Your task to perform on an android device: change the upload size in google photos Image 0: 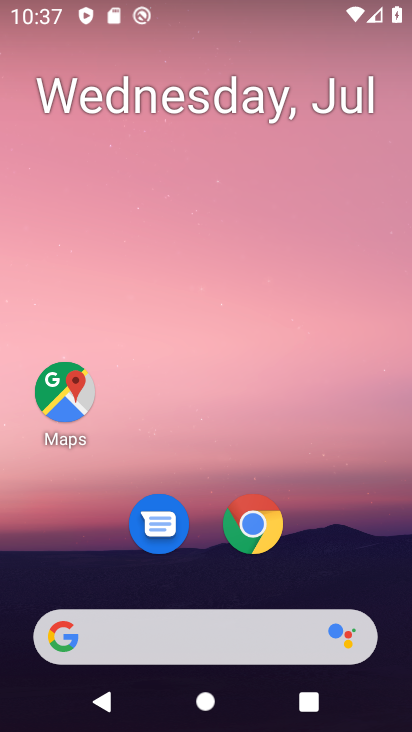
Step 0: press home button
Your task to perform on an android device: change the upload size in google photos Image 1: 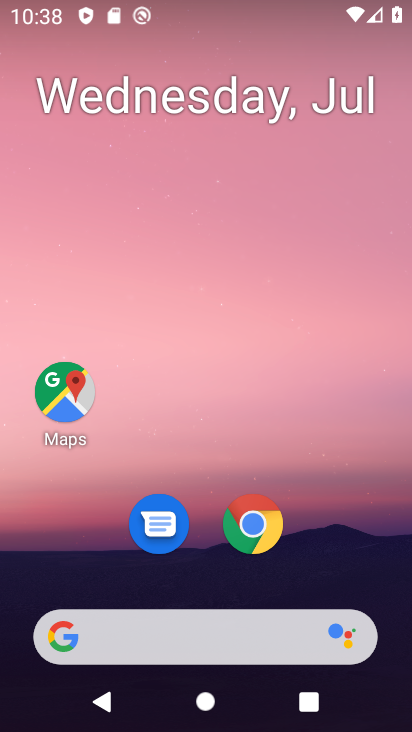
Step 1: drag from (203, 623) to (302, 101)
Your task to perform on an android device: change the upload size in google photos Image 2: 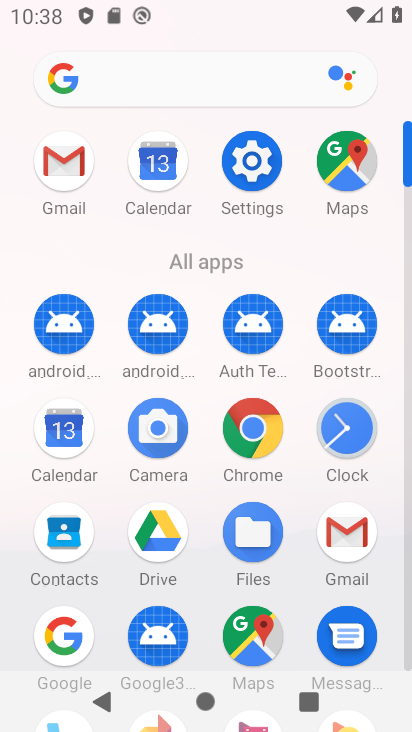
Step 2: drag from (207, 581) to (299, 133)
Your task to perform on an android device: change the upload size in google photos Image 3: 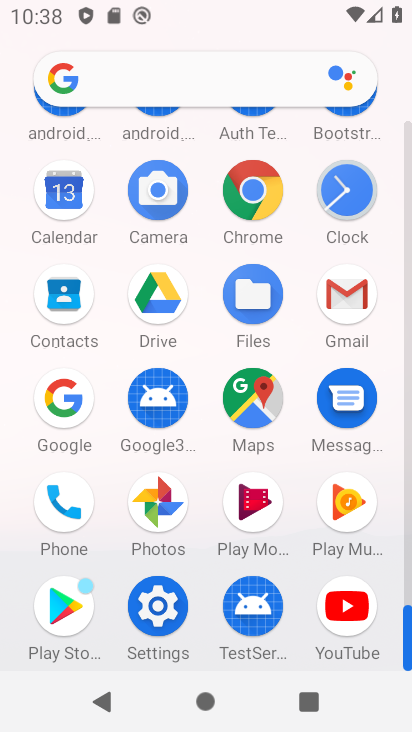
Step 3: click (158, 507)
Your task to perform on an android device: change the upload size in google photos Image 4: 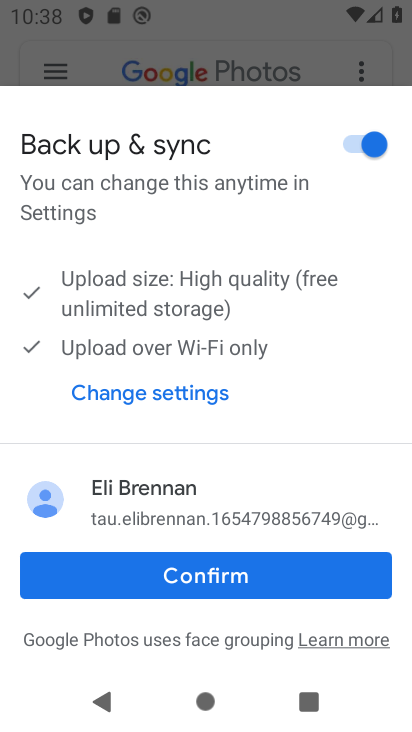
Step 4: click (204, 580)
Your task to perform on an android device: change the upload size in google photos Image 5: 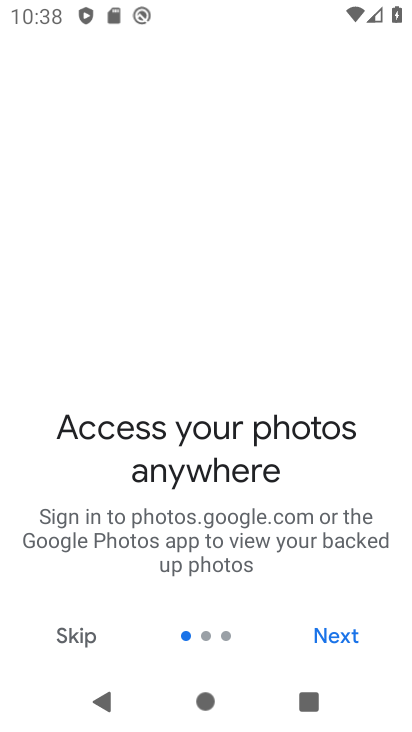
Step 5: click (337, 638)
Your task to perform on an android device: change the upload size in google photos Image 6: 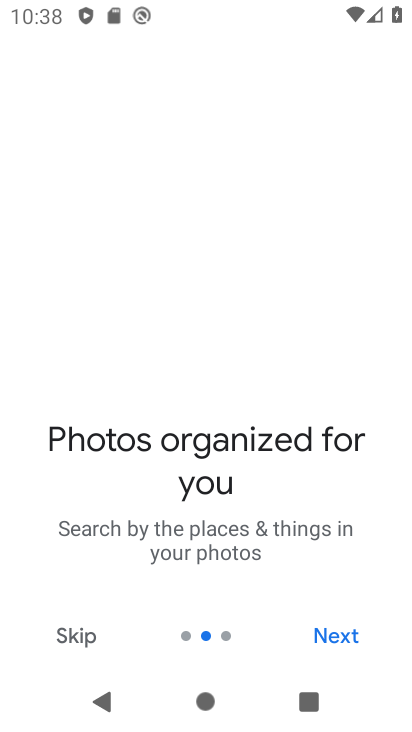
Step 6: click (337, 639)
Your task to perform on an android device: change the upload size in google photos Image 7: 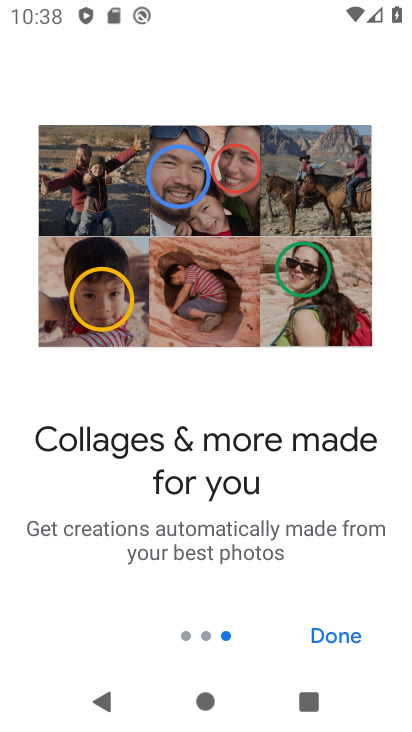
Step 7: click (337, 639)
Your task to perform on an android device: change the upload size in google photos Image 8: 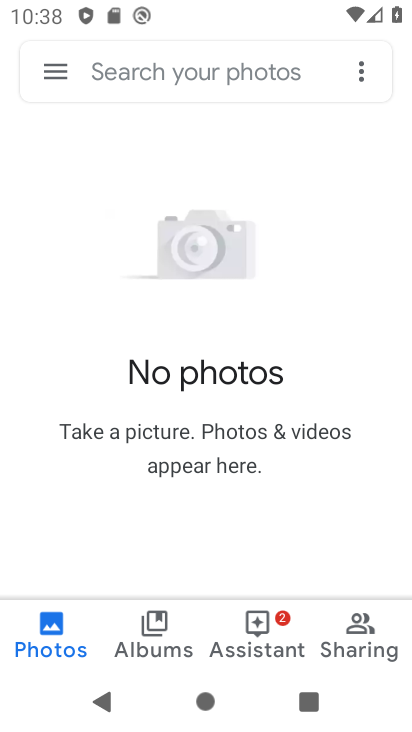
Step 8: click (57, 71)
Your task to perform on an android device: change the upload size in google photos Image 9: 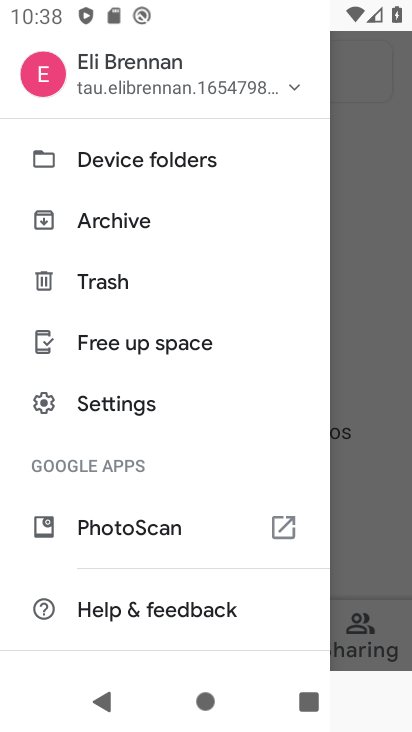
Step 9: click (128, 403)
Your task to perform on an android device: change the upload size in google photos Image 10: 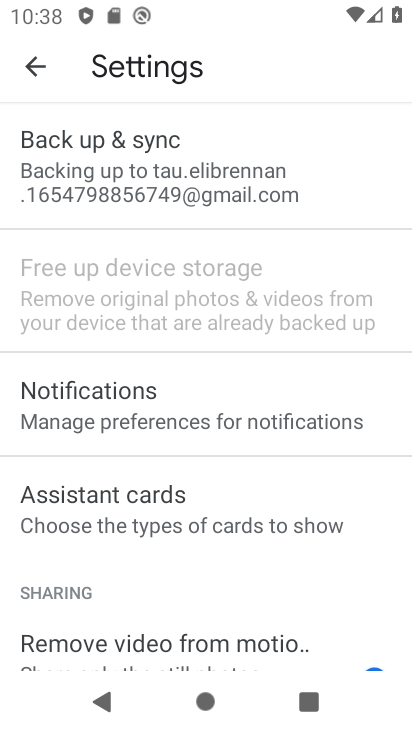
Step 10: click (308, 189)
Your task to perform on an android device: change the upload size in google photos Image 11: 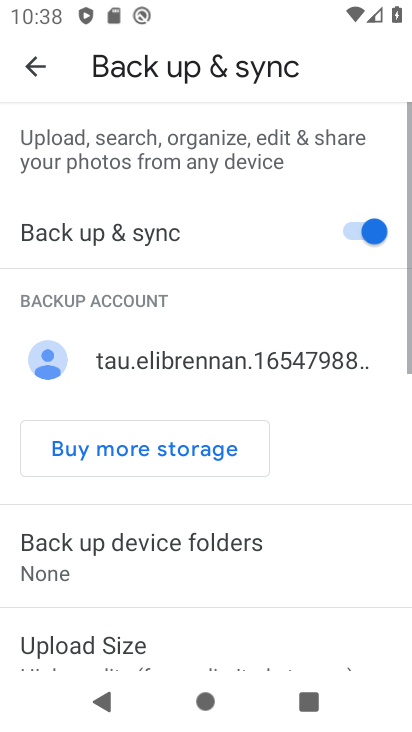
Step 11: drag from (261, 522) to (343, 173)
Your task to perform on an android device: change the upload size in google photos Image 12: 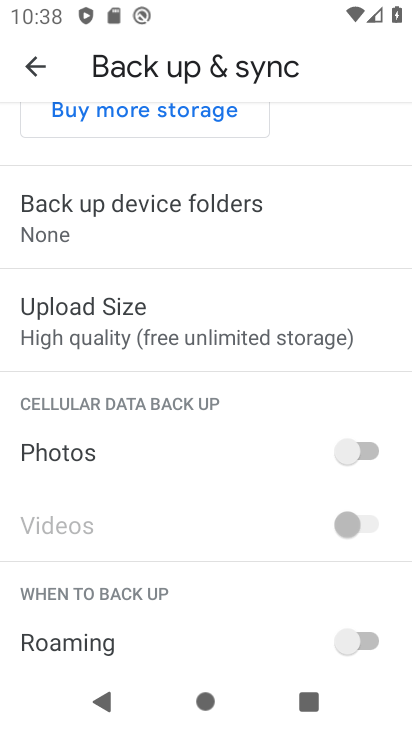
Step 12: click (108, 316)
Your task to perform on an android device: change the upload size in google photos Image 13: 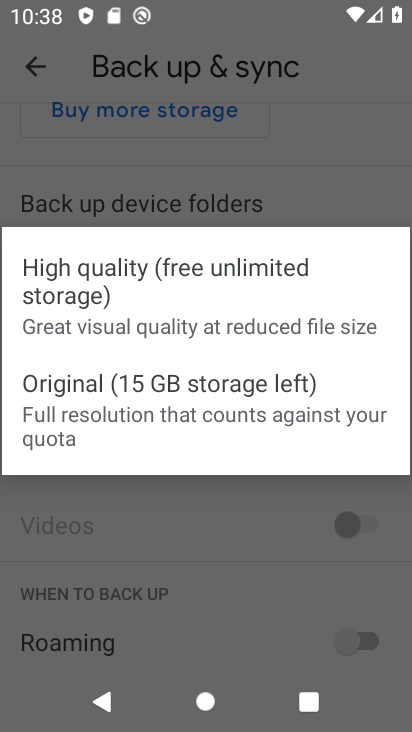
Step 13: click (74, 396)
Your task to perform on an android device: change the upload size in google photos Image 14: 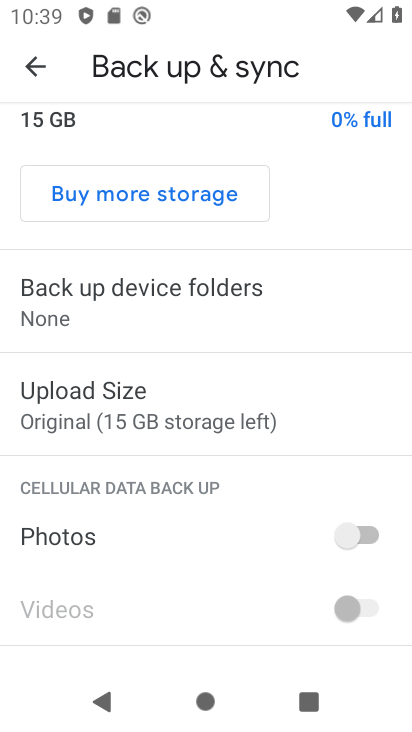
Step 14: task complete